Your task to perform on an android device: Search for sushi restaurants on Maps Image 0: 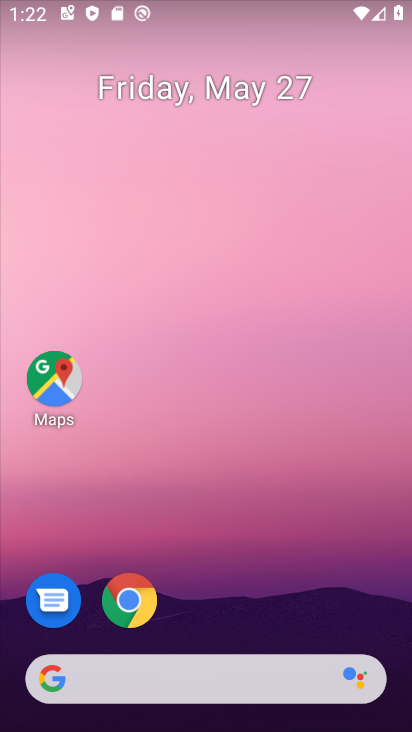
Step 0: drag from (245, 717) to (255, 18)
Your task to perform on an android device: Search for sushi restaurants on Maps Image 1: 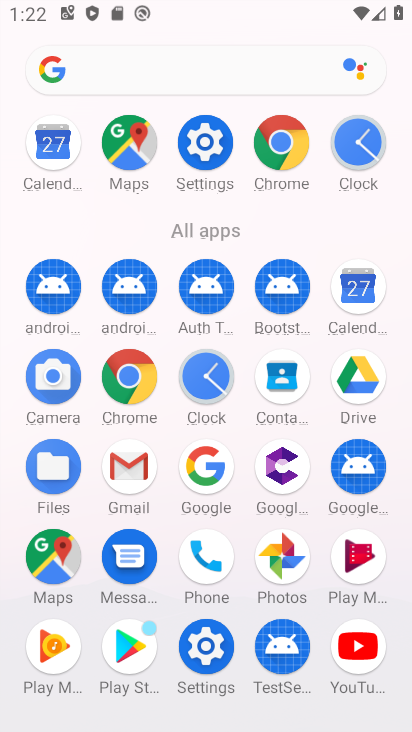
Step 1: click (64, 552)
Your task to perform on an android device: Search for sushi restaurants on Maps Image 2: 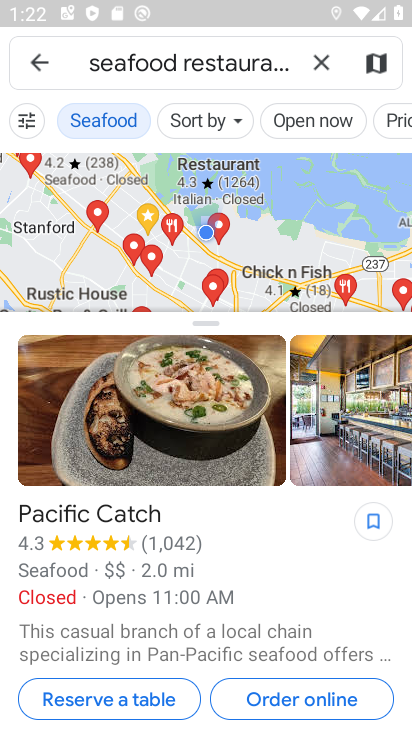
Step 2: click (329, 51)
Your task to perform on an android device: Search for sushi restaurants on Maps Image 3: 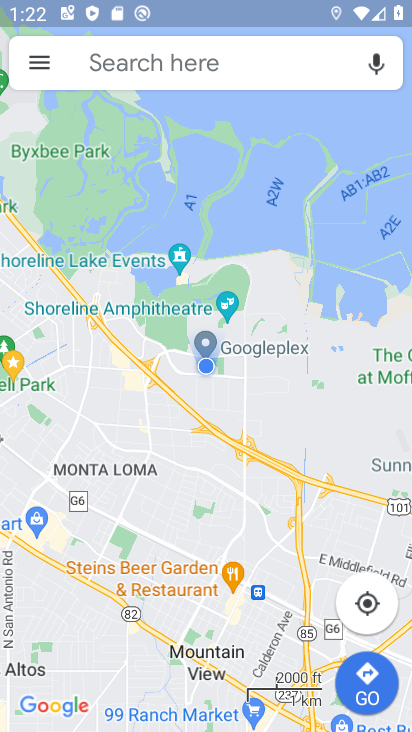
Step 3: click (183, 60)
Your task to perform on an android device: Search for sushi restaurants on Maps Image 4: 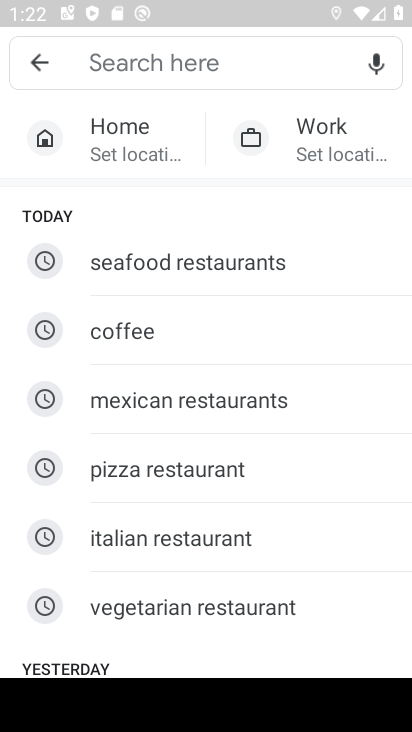
Step 4: type "sushi restaurants"
Your task to perform on an android device: Search for sushi restaurants on Maps Image 5: 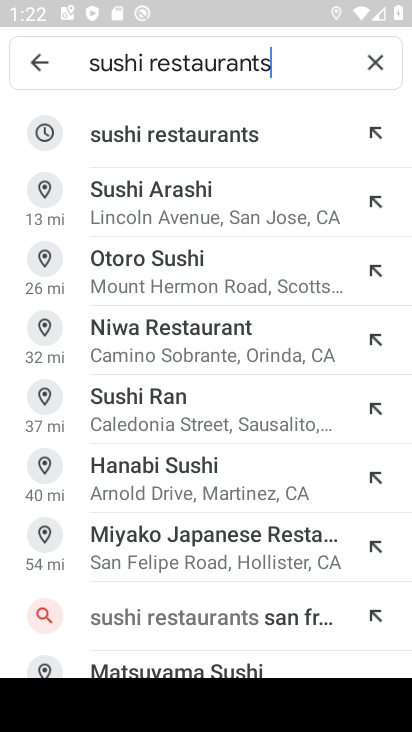
Step 5: click (168, 140)
Your task to perform on an android device: Search for sushi restaurants on Maps Image 6: 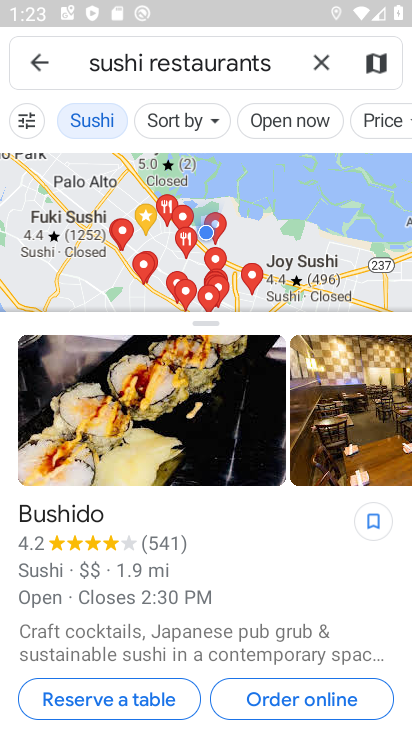
Step 6: task complete